Your task to perform on an android device: Open location settings Image 0: 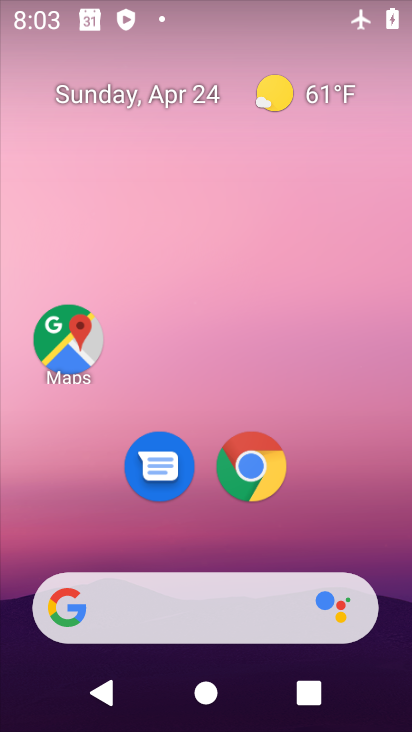
Step 0: drag from (208, 549) to (251, 0)
Your task to perform on an android device: Open location settings Image 1: 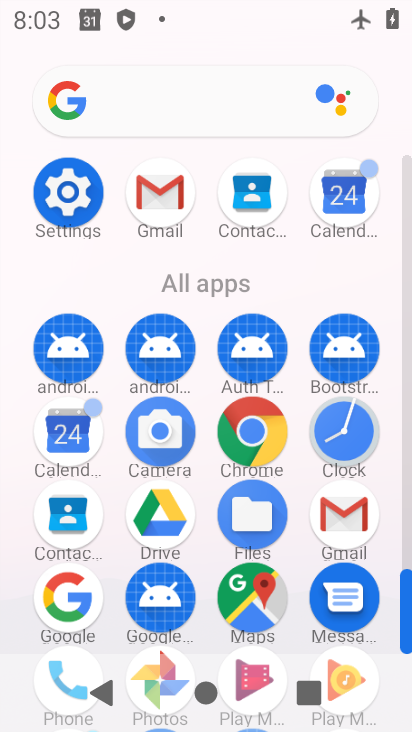
Step 1: click (76, 219)
Your task to perform on an android device: Open location settings Image 2: 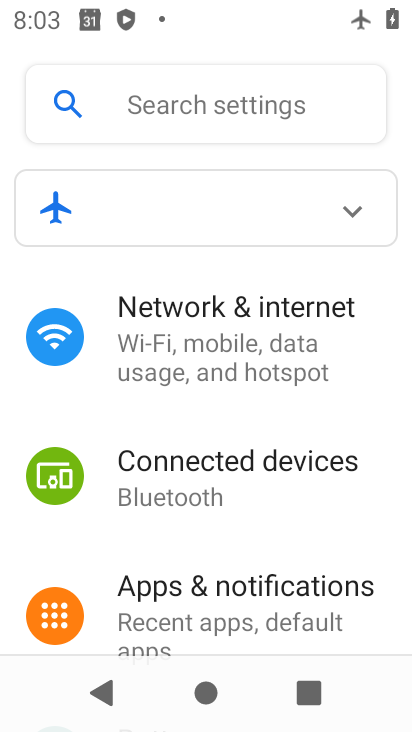
Step 2: drag from (186, 530) to (239, 135)
Your task to perform on an android device: Open location settings Image 3: 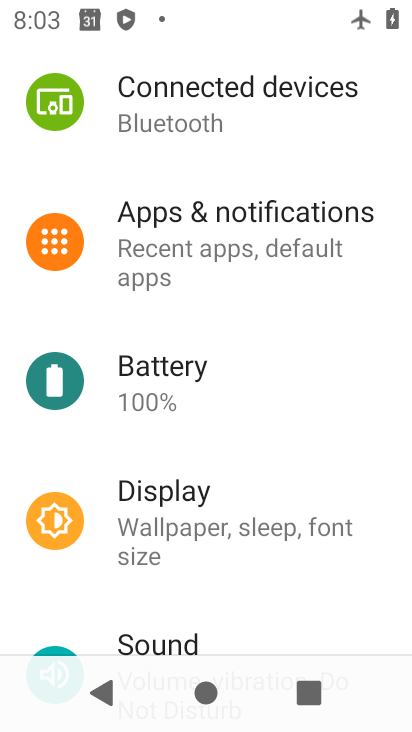
Step 3: drag from (192, 561) to (291, 46)
Your task to perform on an android device: Open location settings Image 4: 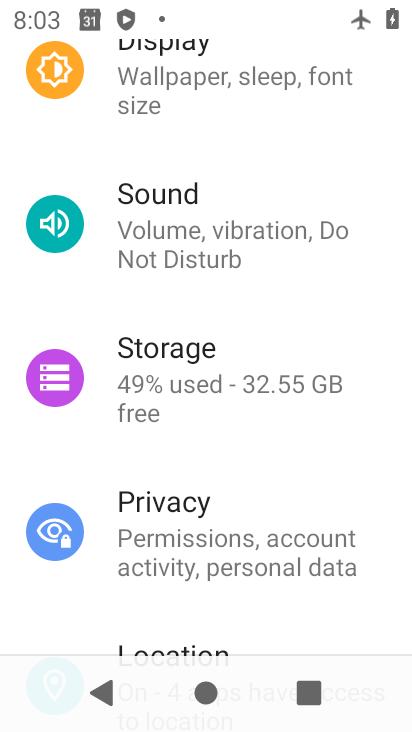
Step 4: drag from (167, 568) to (238, 207)
Your task to perform on an android device: Open location settings Image 5: 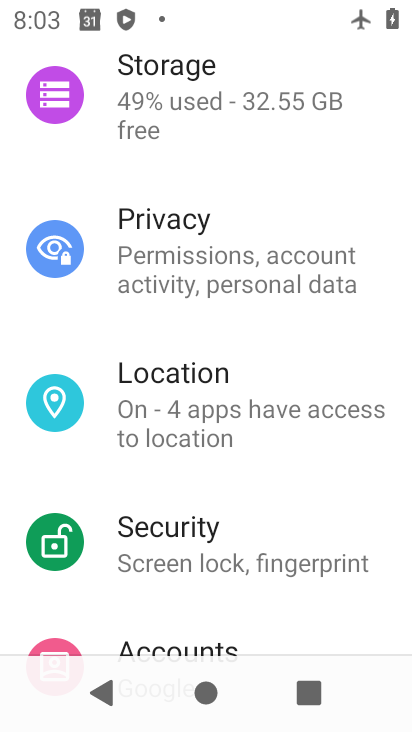
Step 5: click (153, 424)
Your task to perform on an android device: Open location settings Image 6: 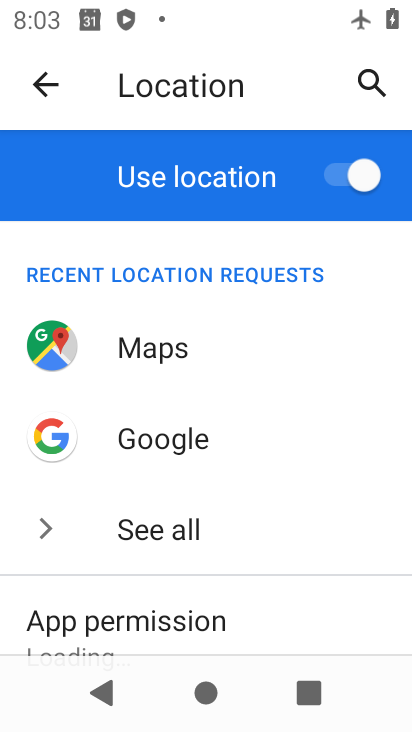
Step 6: task complete